Your task to perform on an android device: open chrome privacy settings Image 0: 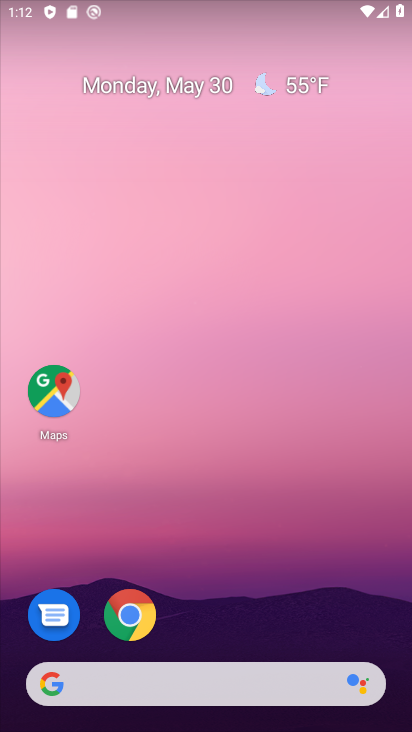
Step 0: drag from (157, 656) to (263, 61)
Your task to perform on an android device: open chrome privacy settings Image 1: 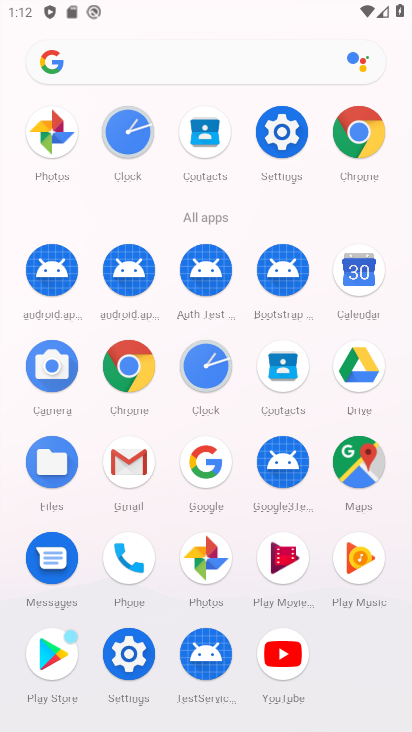
Step 1: drag from (205, 538) to (235, 293)
Your task to perform on an android device: open chrome privacy settings Image 2: 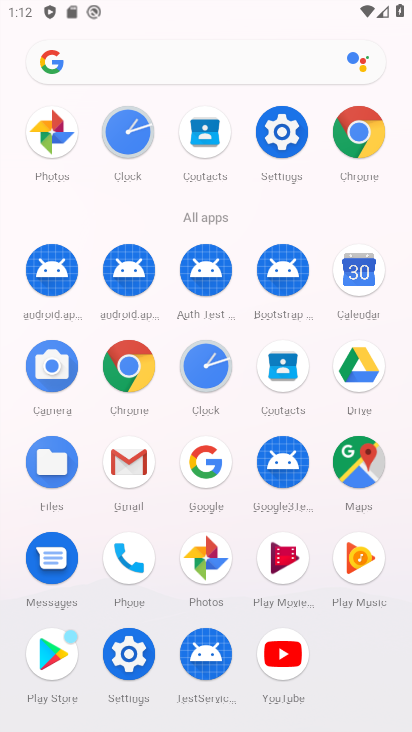
Step 2: click (151, 367)
Your task to perform on an android device: open chrome privacy settings Image 3: 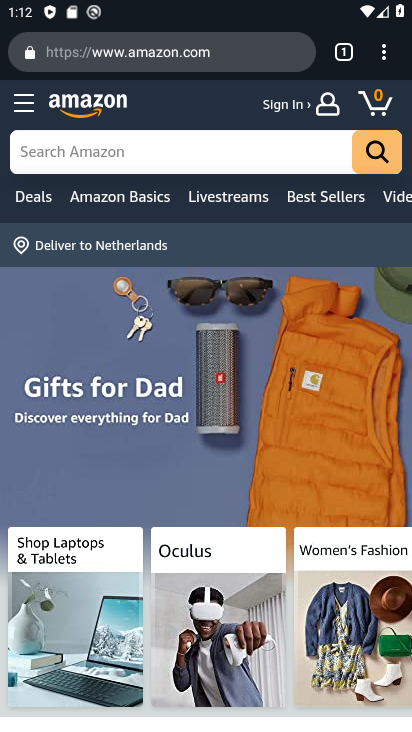
Step 3: drag from (381, 47) to (250, 632)
Your task to perform on an android device: open chrome privacy settings Image 4: 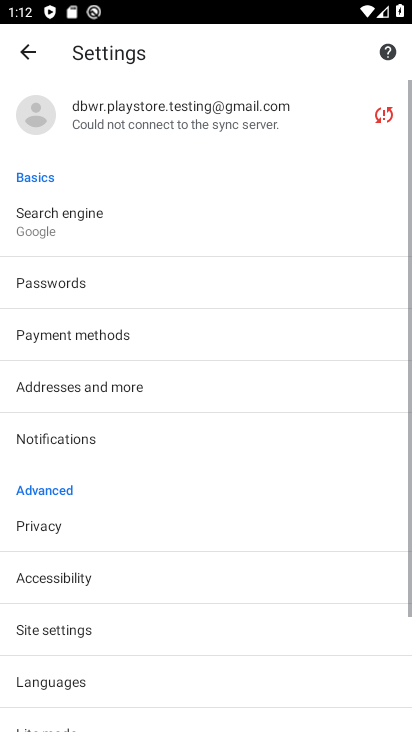
Step 4: click (125, 510)
Your task to perform on an android device: open chrome privacy settings Image 5: 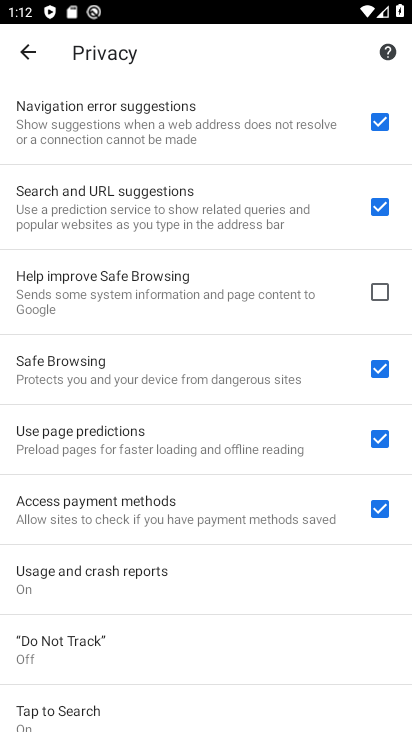
Step 5: task complete